Your task to perform on an android device: toggle priority inbox in the gmail app Image 0: 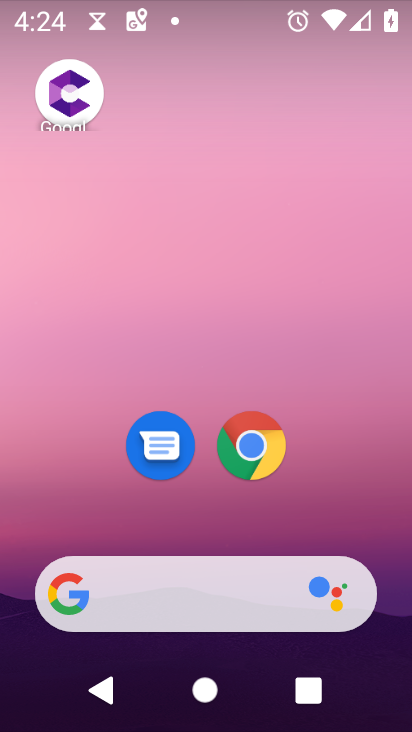
Step 0: drag from (321, 580) to (345, 0)
Your task to perform on an android device: toggle priority inbox in the gmail app Image 1: 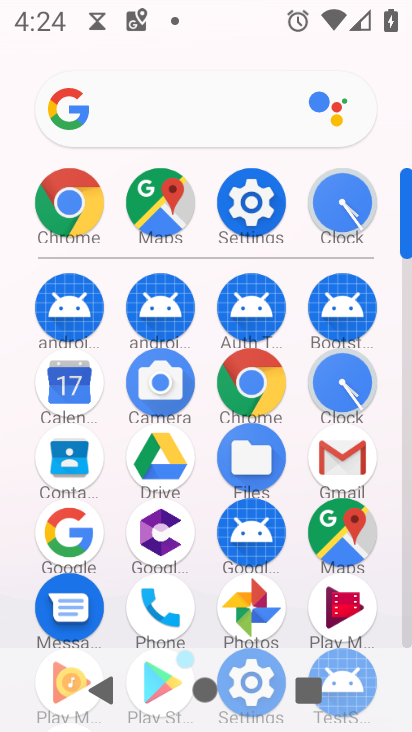
Step 1: click (333, 456)
Your task to perform on an android device: toggle priority inbox in the gmail app Image 2: 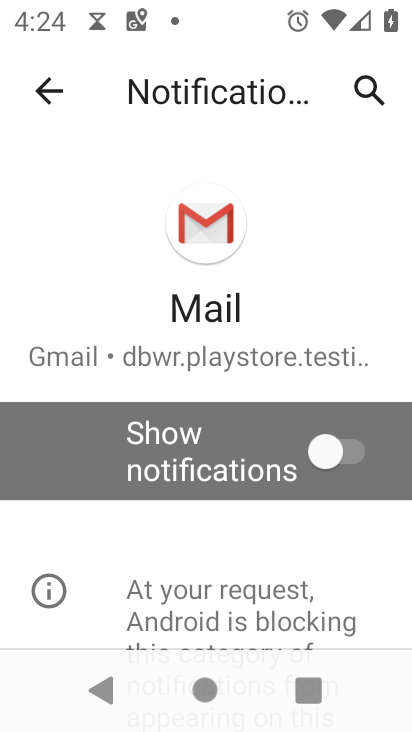
Step 2: press back button
Your task to perform on an android device: toggle priority inbox in the gmail app Image 3: 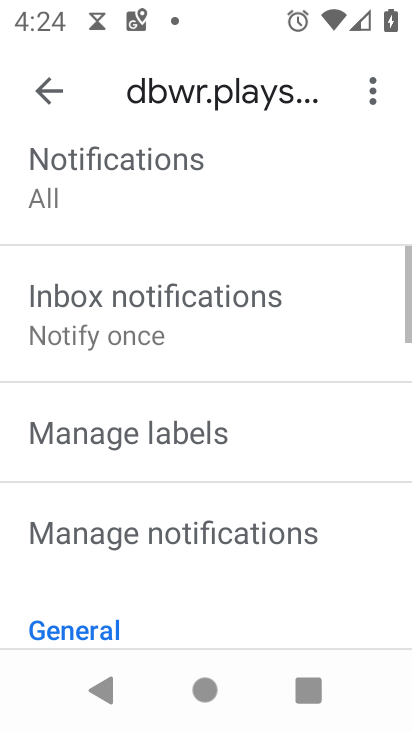
Step 3: drag from (250, 220) to (238, 727)
Your task to perform on an android device: toggle priority inbox in the gmail app Image 4: 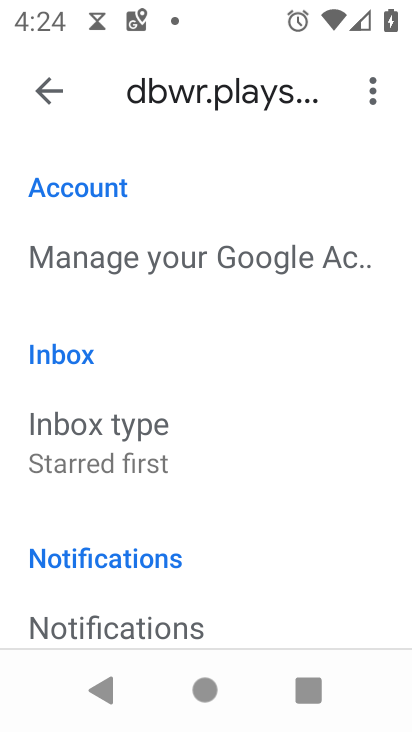
Step 4: click (175, 443)
Your task to perform on an android device: toggle priority inbox in the gmail app Image 5: 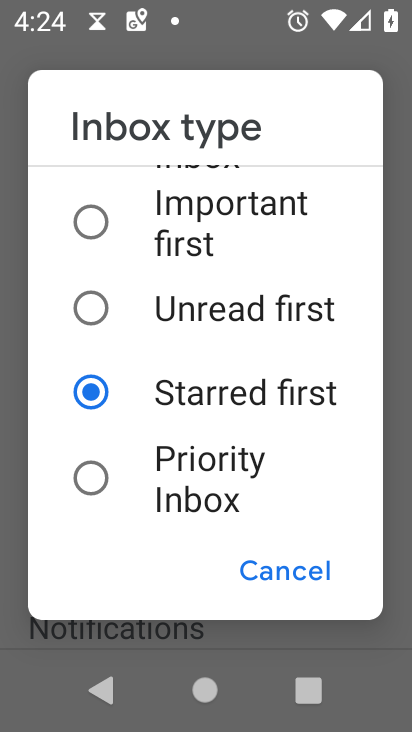
Step 5: drag from (237, 264) to (292, 200)
Your task to perform on an android device: toggle priority inbox in the gmail app Image 6: 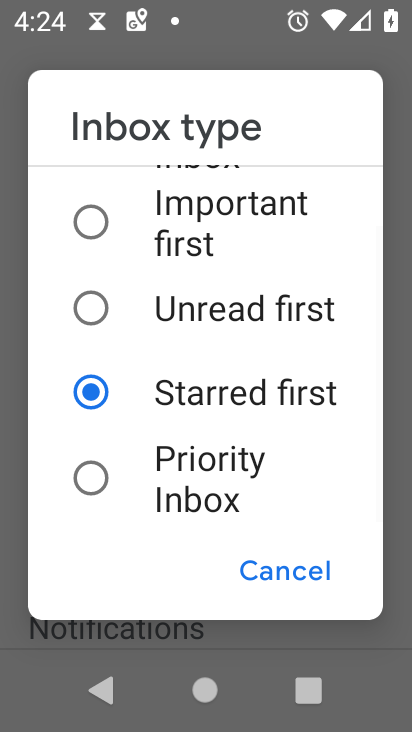
Step 6: click (78, 472)
Your task to perform on an android device: toggle priority inbox in the gmail app Image 7: 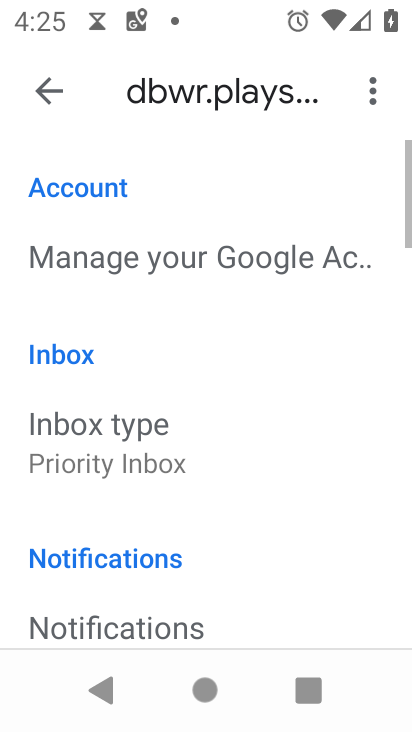
Step 7: task complete